Your task to perform on an android device: Add "logitech g903" to the cart on walmart Image 0: 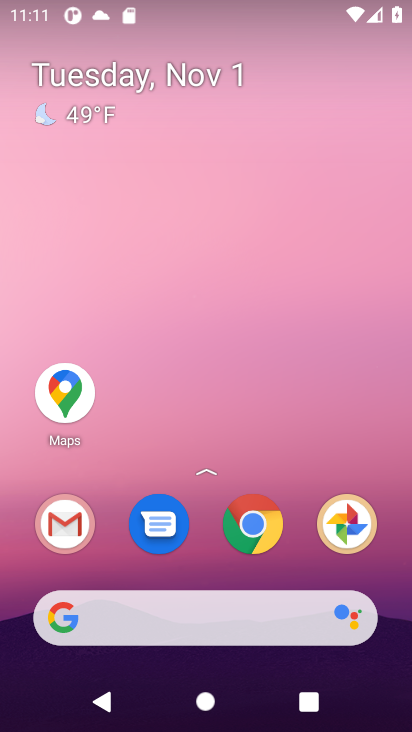
Step 0: press home button
Your task to perform on an android device: Add "logitech g903" to the cart on walmart Image 1: 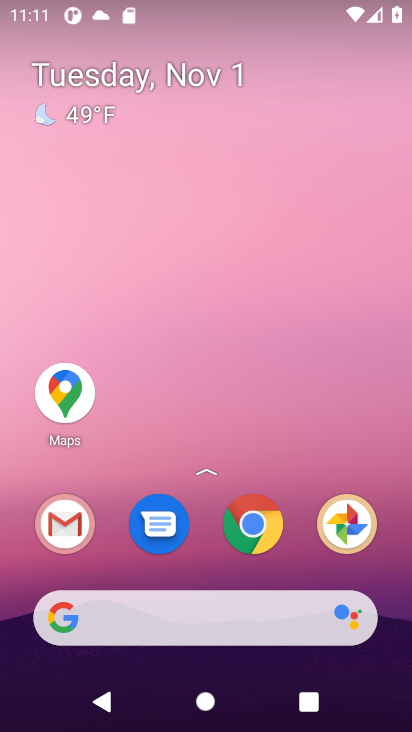
Step 1: click (98, 611)
Your task to perform on an android device: Add "logitech g903" to the cart on walmart Image 2: 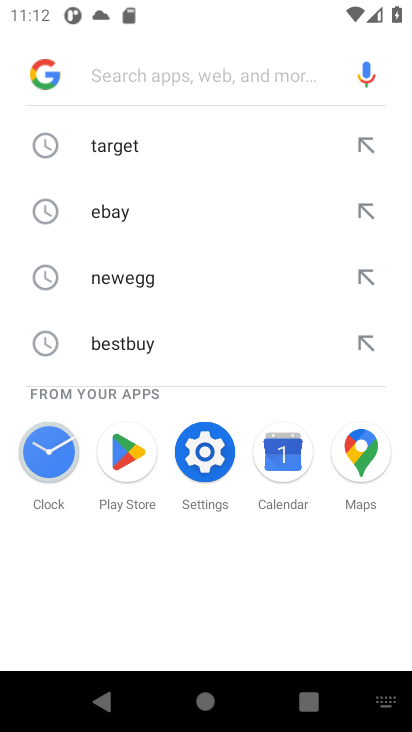
Step 2: type "walmart"
Your task to perform on an android device: Add "logitech g903" to the cart on walmart Image 3: 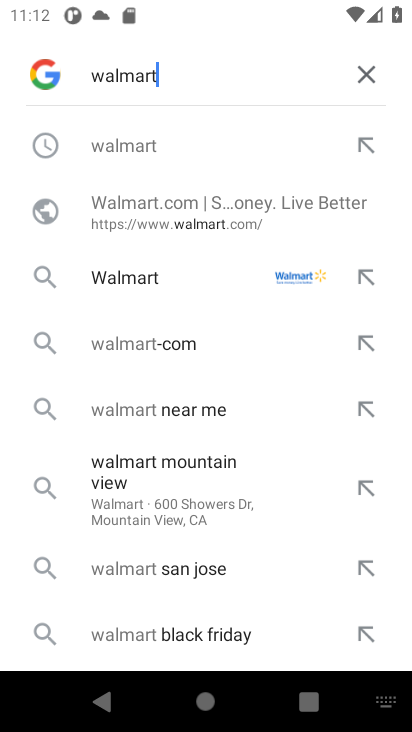
Step 3: press enter
Your task to perform on an android device: Add "logitech g903" to the cart on walmart Image 4: 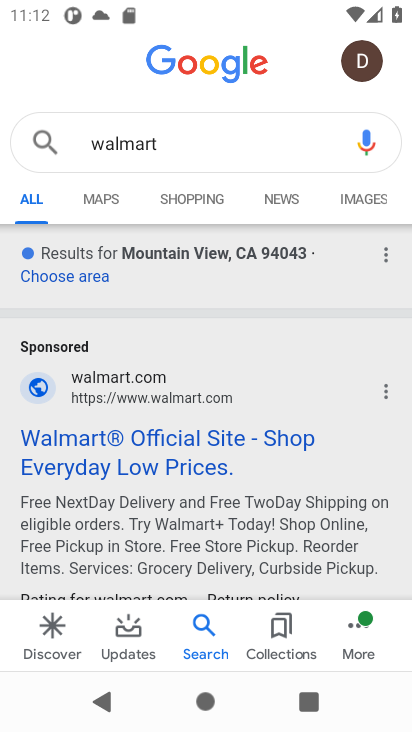
Step 4: click (94, 449)
Your task to perform on an android device: Add "logitech g903" to the cart on walmart Image 5: 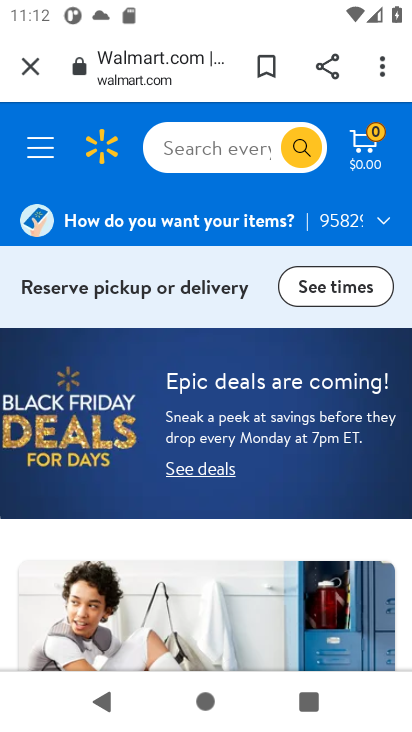
Step 5: click (202, 155)
Your task to perform on an android device: Add "logitech g903" to the cart on walmart Image 6: 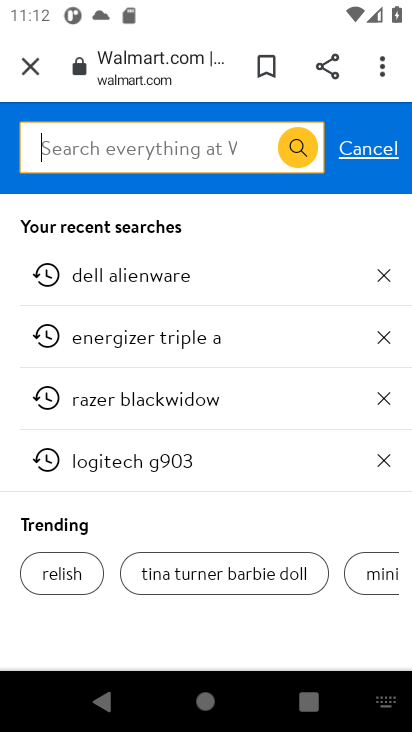
Step 6: type "logitech g903"
Your task to perform on an android device: Add "logitech g903" to the cart on walmart Image 7: 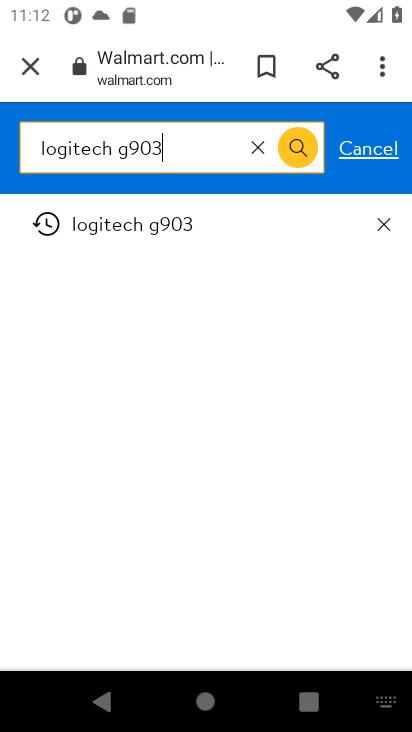
Step 7: press enter
Your task to perform on an android device: Add "logitech g903" to the cart on walmart Image 8: 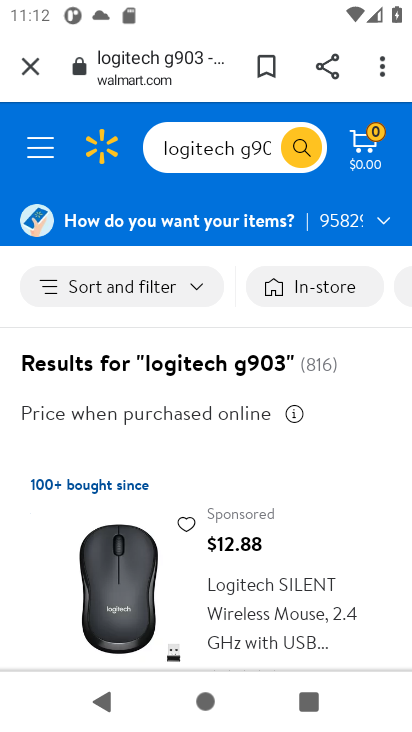
Step 8: drag from (302, 609) to (299, 334)
Your task to perform on an android device: Add "logitech g903" to the cart on walmart Image 9: 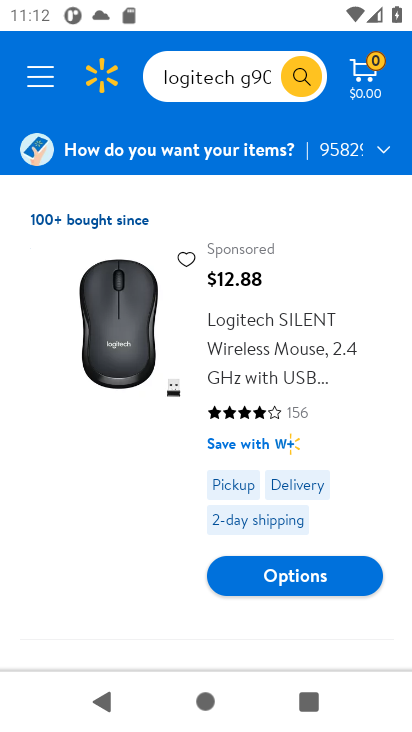
Step 9: drag from (282, 598) to (281, 314)
Your task to perform on an android device: Add "logitech g903" to the cart on walmart Image 10: 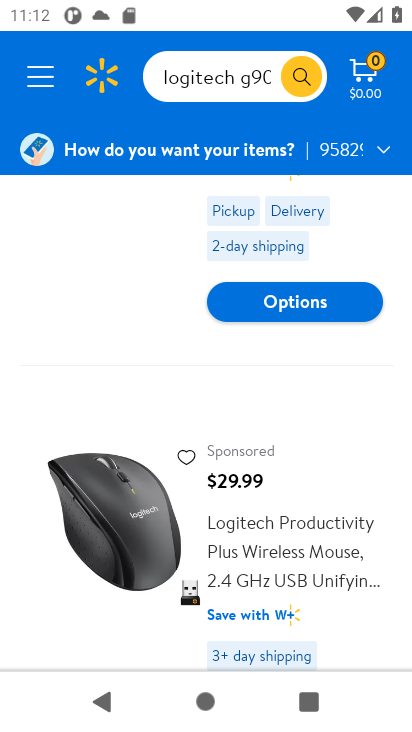
Step 10: drag from (318, 620) to (331, 330)
Your task to perform on an android device: Add "logitech g903" to the cart on walmart Image 11: 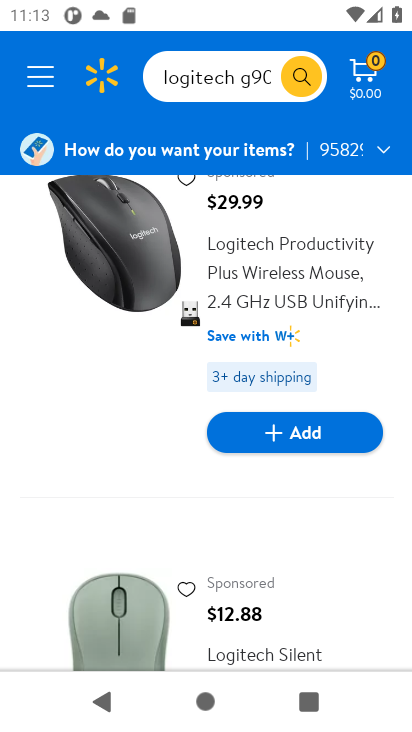
Step 11: drag from (333, 602) to (346, 225)
Your task to perform on an android device: Add "logitech g903" to the cart on walmart Image 12: 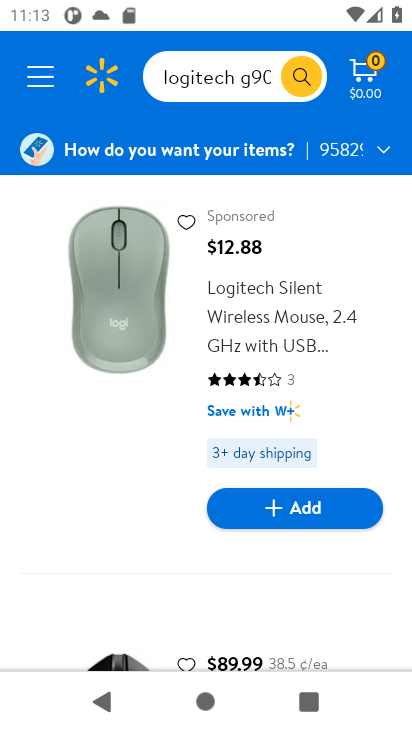
Step 12: drag from (342, 576) to (362, 223)
Your task to perform on an android device: Add "logitech g903" to the cart on walmart Image 13: 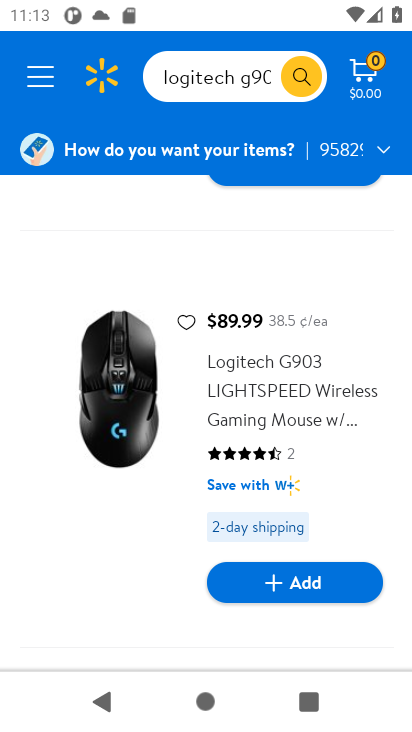
Step 13: click (309, 589)
Your task to perform on an android device: Add "logitech g903" to the cart on walmart Image 14: 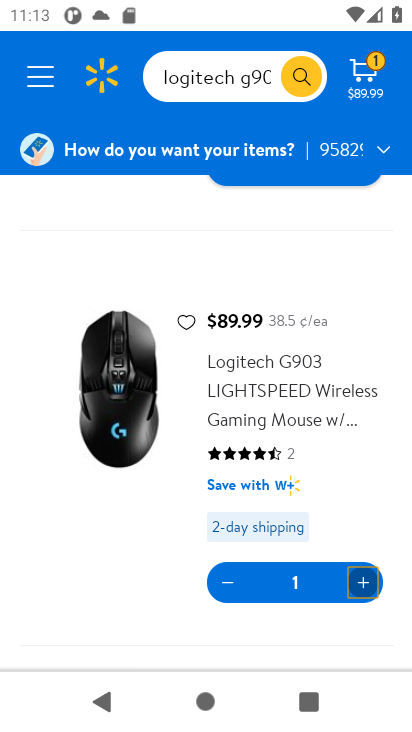
Step 14: task complete